Your task to perform on an android device: turn pop-ups on in chrome Image 0: 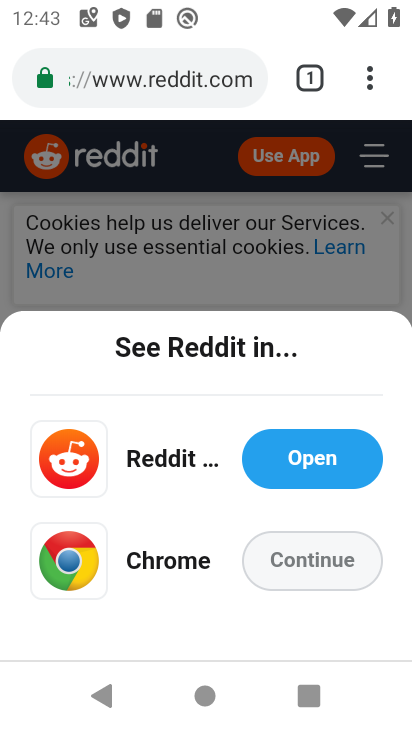
Step 0: press home button
Your task to perform on an android device: turn pop-ups on in chrome Image 1: 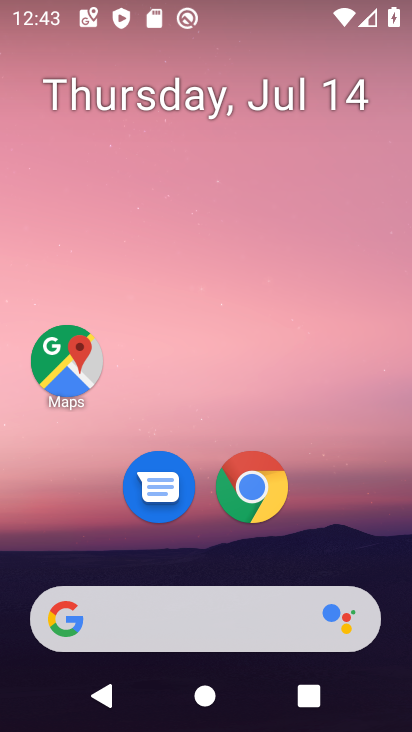
Step 1: drag from (272, 632) to (315, 125)
Your task to perform on an android device: turn pop-ups on in chrome Image 2: 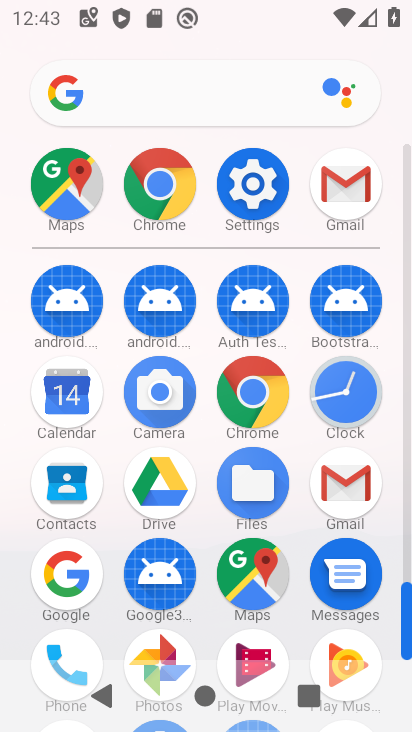
Step 2: click (171, 200)
Your task to perform on an android device: turn pop-ups on in chrome Image 3: 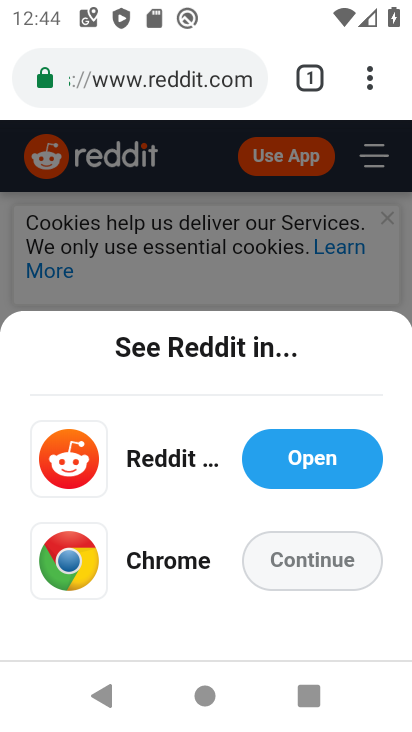
Step 3: click (373, 88)
Your task to perform on an android device: turn pop-ups on in chrome Image 4: 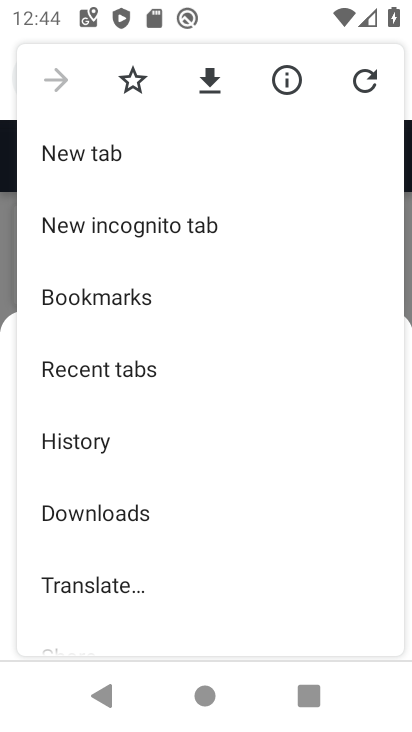
Step 4: drag from (195, 647) to (166, 146)
Your task to perform on an android device: turn pop-ups on in chrome Image 5: 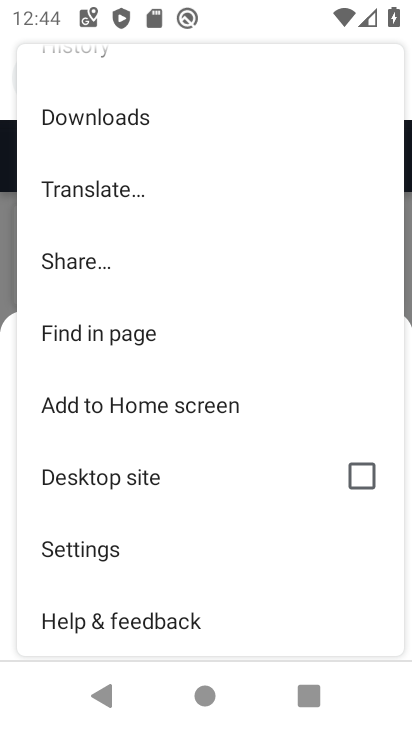
Step 5: click (123, 559)
Your task to perform on an android device: turn pop-ups on in chrome Image 6: 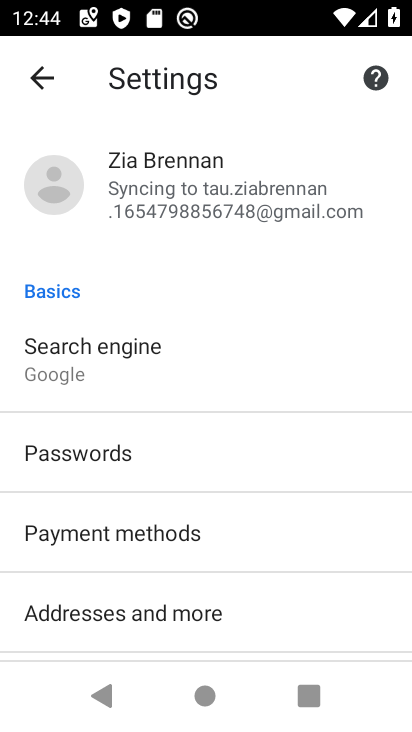
Step 6: drag from (104, 608) to (118, 398)
Your task to perform on an android device: turn pop-ups on in chrome Image 7: 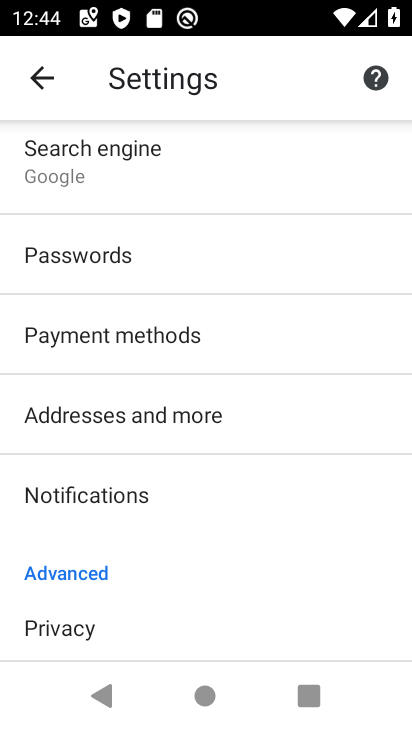
Step 7: drag from (119, 595) to (129, 369)
Your task to perform on an android device: turn pop-ups on in chrome Image 8: 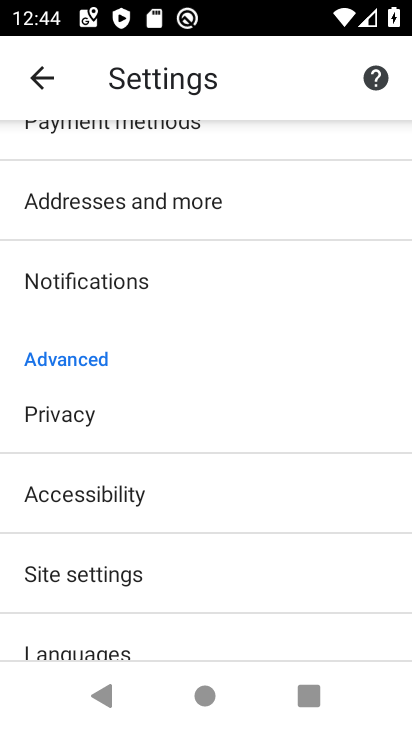
Step 8: click (100, 565)
Your task to perform on an android device: turn pop-ups on in chrome Image 9: 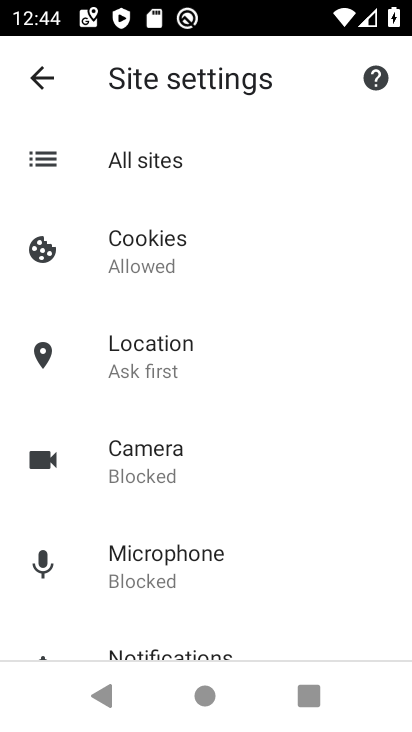
Step 9: drag from (162, 596) to (149, 347)
Your task to perform on an android device: turn pop-ups on in chrome Image 10: 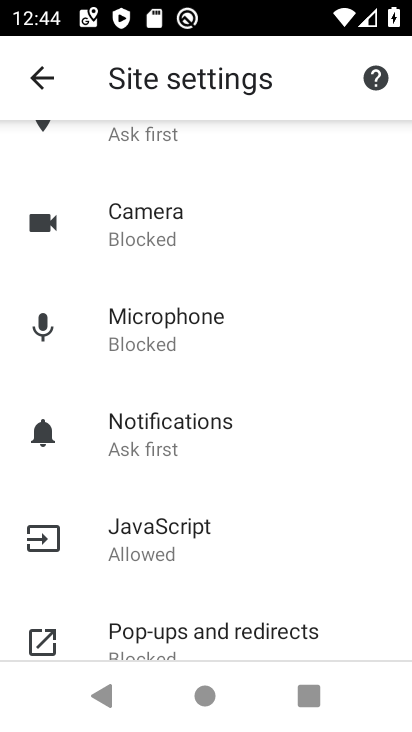
Step 10: click (185, 647)
Your task to perform on an android device: turn pop-ups on in chrome Image 11: 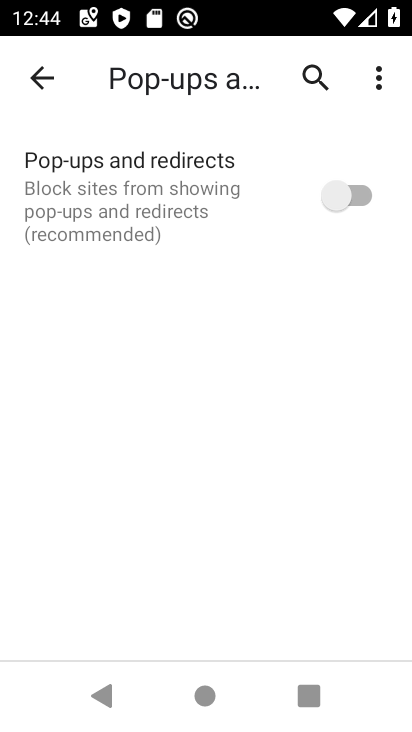
Step 11: click (370, 207)
Your task to perform on an android device: turn pop-ups on in chrome Image 12: 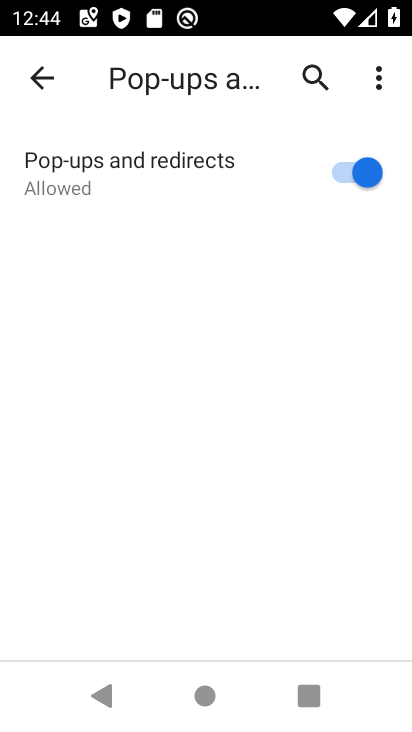
Step 12: task complete